Your task to perform on an android device: Is it going to rain tomorrow? Image 0: 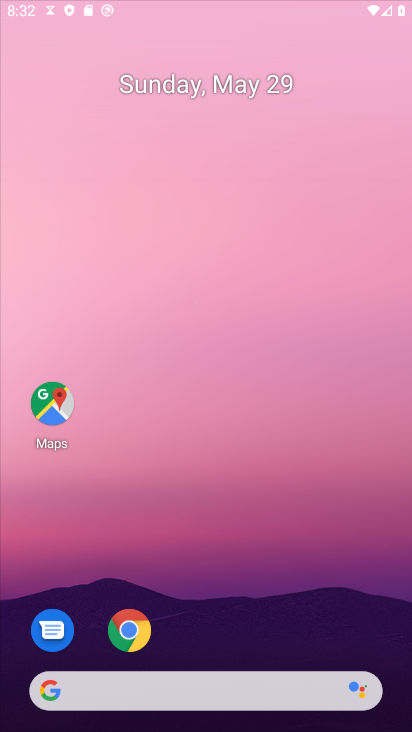
Step 0: drag from (262, 491) to (254, 280)
Your task to perform on an android device: Is it going to rain tomorrow? Image 1: 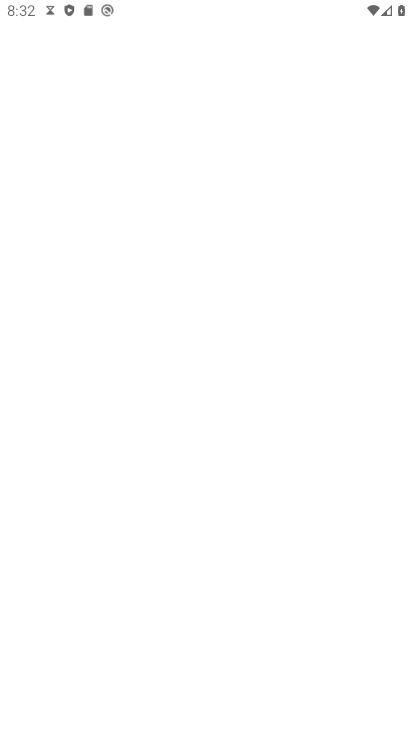
Step 1: press home button
Your task to perform on an android device: Is it going to rain tomorrow? Image 2: 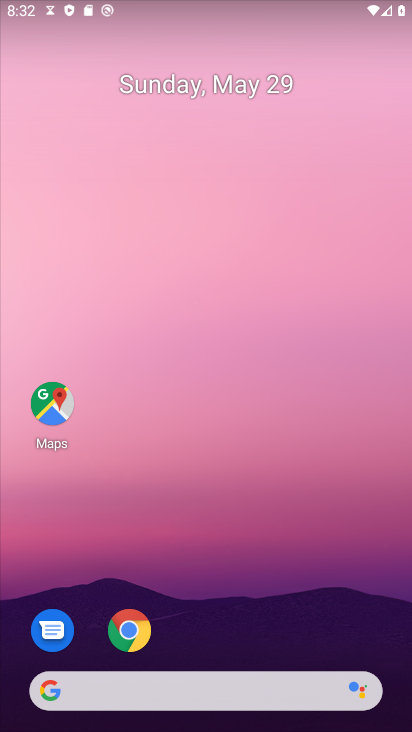
Step 2: click (85, 684)
Your task to perform on an android device: Is it going to rain tomorrow? Image 3: 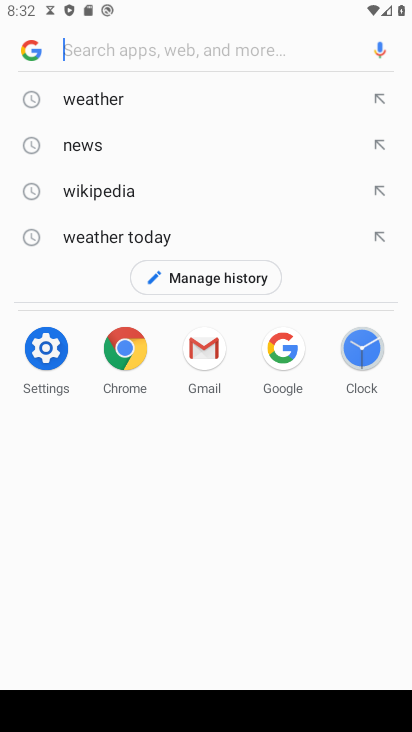
Step 3: click (136, 103)
Your task to perform on an android device: Is it going to rain tomorrow? Image 4: 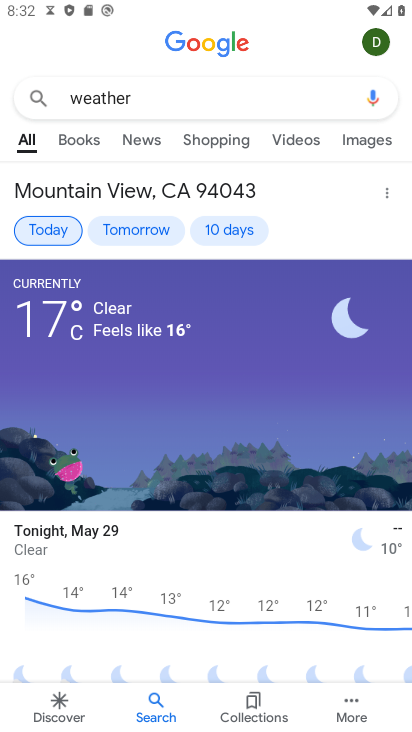
Step 4: click (141, 223)
Your task to perform on an android device: Is it going to rain tomorrow? Image 5: 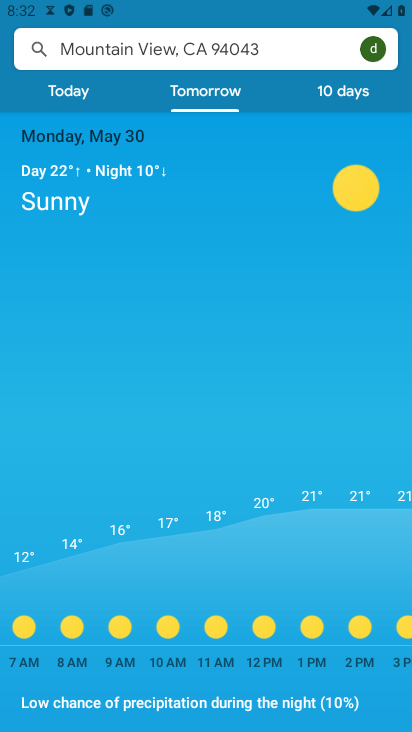
Step 5: task complete